Your task to perform on an android device: change the upload size in google photos Image 0: 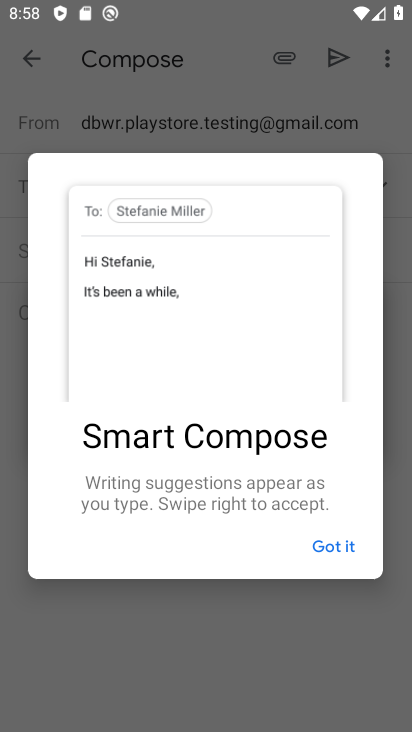
Step 0: press home button
Your task to perform on an android device: change the upload size in google photos Image 1: 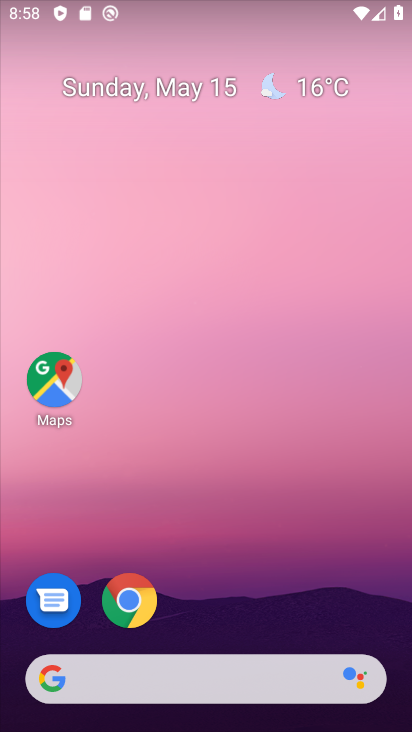
Step 1: drag from (219, 564) to (229, 135)
Your task to perform on an android device: change the upload size in google photos Image 2: 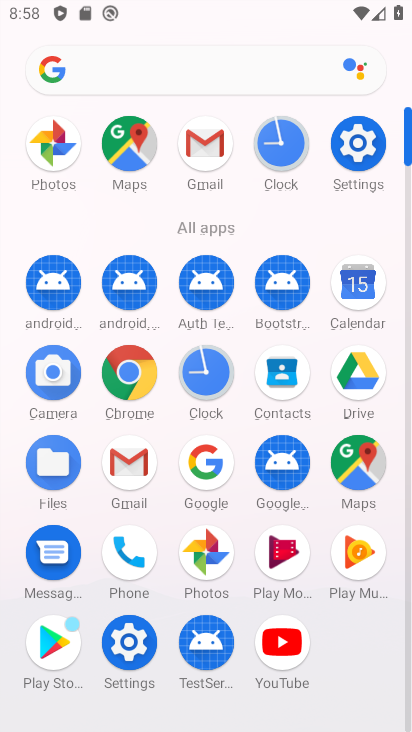
Step 2: click (199, 563)
Your task to perform on an android device: change the upload size in google photos Image 3: 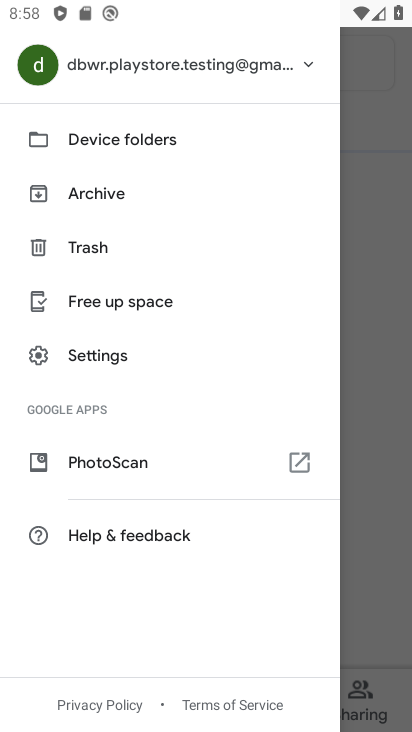
Step 3: click (75, 360)
Your task to perform on an android device: change the upload size in google photos Image 4: 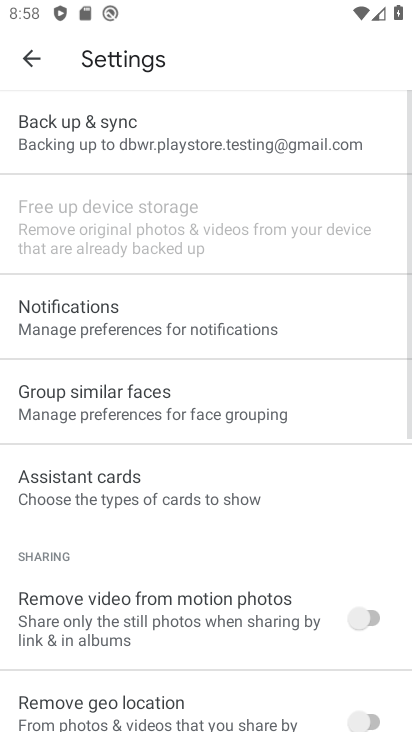
Step 4: click (116, 149)
Your task to perform on an android device: change the upload size in google photos Image 5: 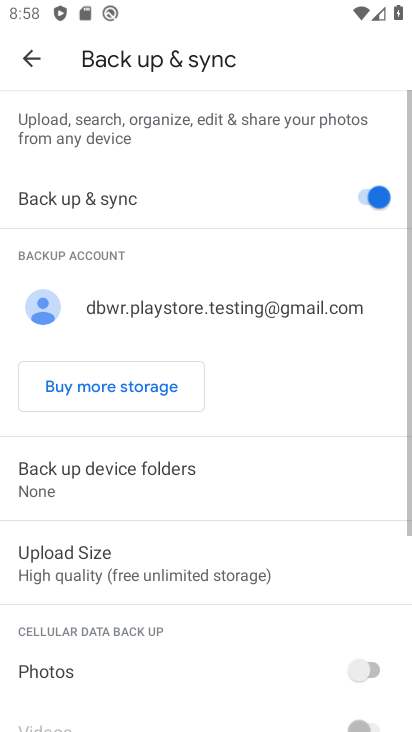
Step 5: click (150, 571)
Your task to perform on an android device: change the upload size in google photos Image 6: 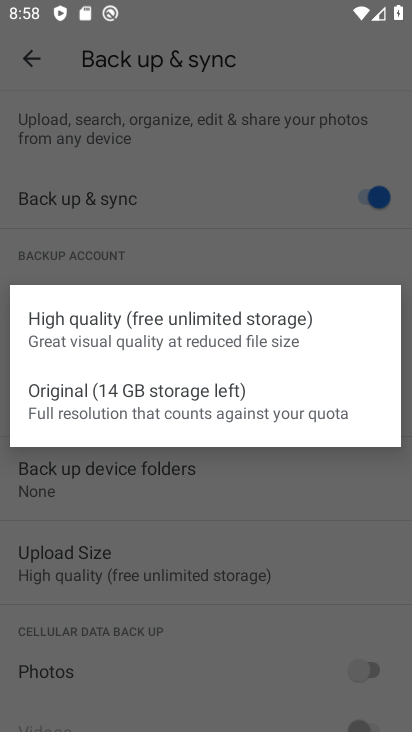
Step 6: click (131, 383)
Your task to perform on an android device: change the upload size in google photos Image 7: 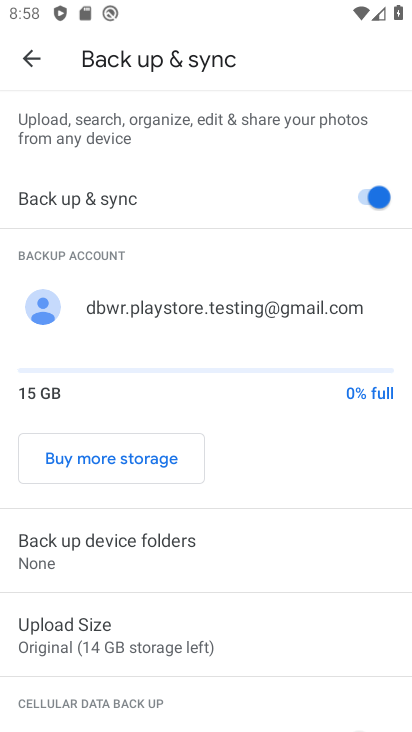
Step 7: task complete